Your task to perform on an android device: Search for seafood restaurants on Google Maps Image 0: 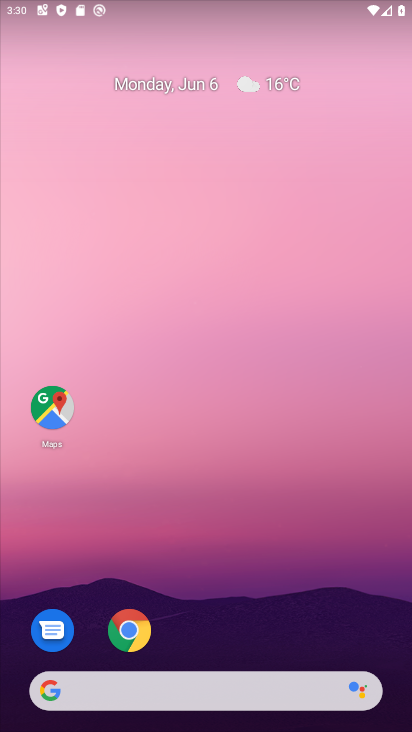
Step 0: click (51, 406)
Your task to perform on an android device: Search for seafood restaurants on Google Maps Image 1: 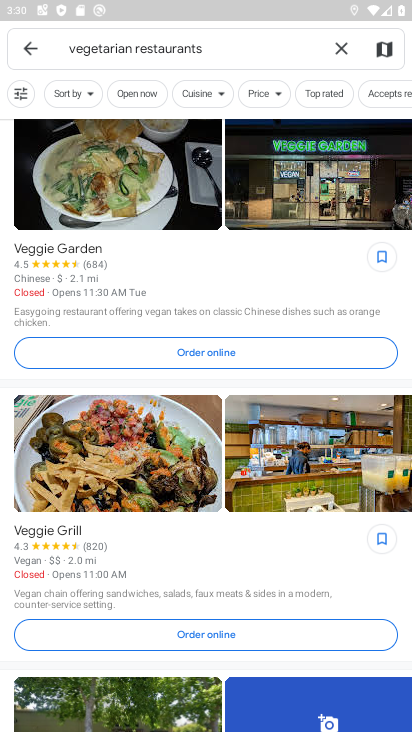
Step 1: click (344, 38)
Your task to perform on an android device: Search for seafood restaurants on Google Maps Image 2: 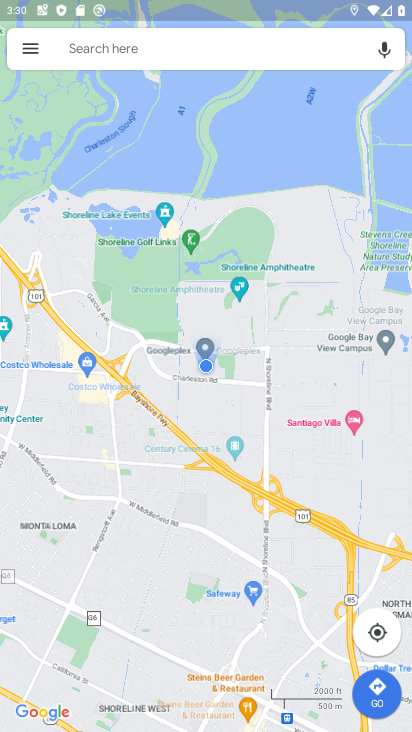
Step 2: click (122, 52)
Your task to perform on an android device: Search for seafood restaurants on Google Maps Image 3: 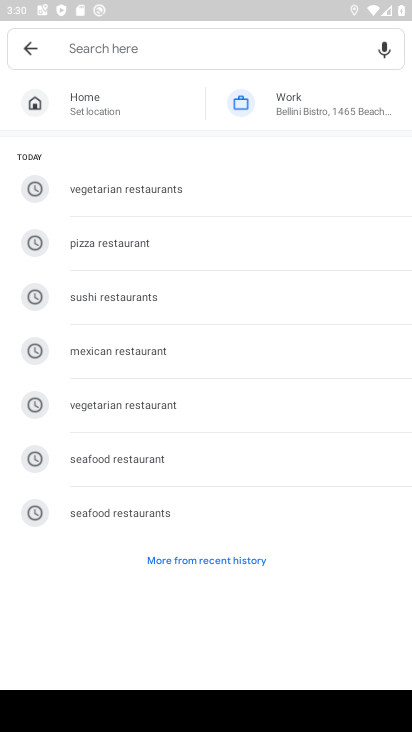
Step 3: click (133, 511)
Your task to perform on an android device: Search for seafood restaurants on Google Maps Image 4: 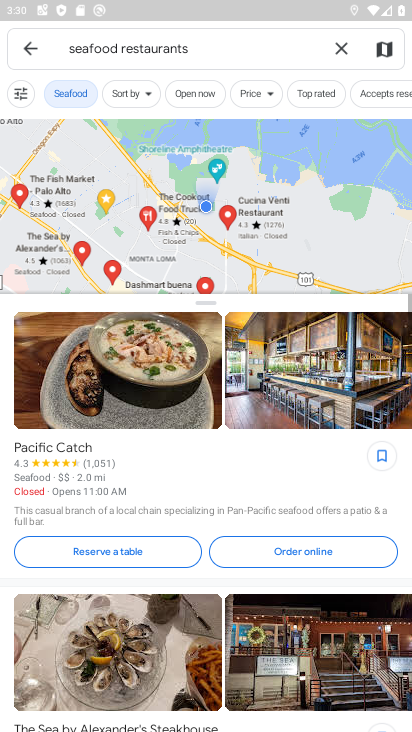
Step 4: task complete